Your task to perform on an android device: Search for vegetarian restaurants on Maps Image 0: 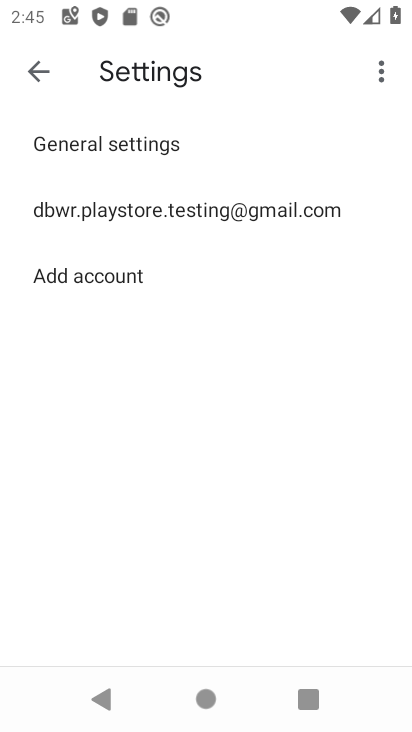
Step 0: click (34, 67)
Your task to perform on an android device: Search for vegetarian restaurants on Maps Image 1: 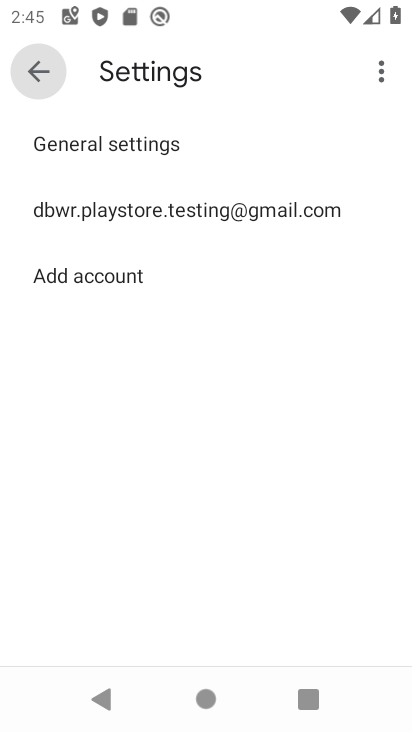
Step 1: click (34, 67)
Your task to perform on an android device: Search for vegetarian restaurants on Maps Image 2: 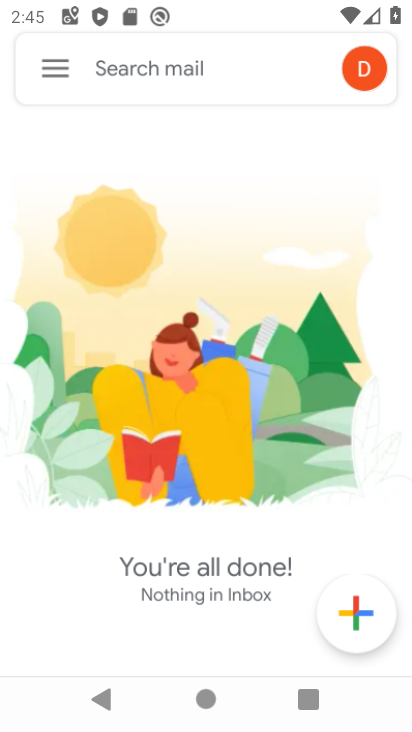
Step 2: click (34, 67)
Your task to perform on an android device: Search for vegetarian restaurants on Maps Image 3: 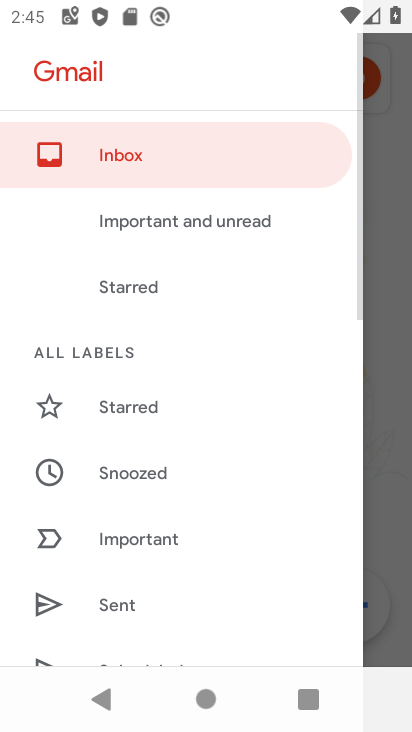
Step 3: click (394, 362)
Your task to perform on an android device: Search for vegetarian restaurants on Maps Image 4: 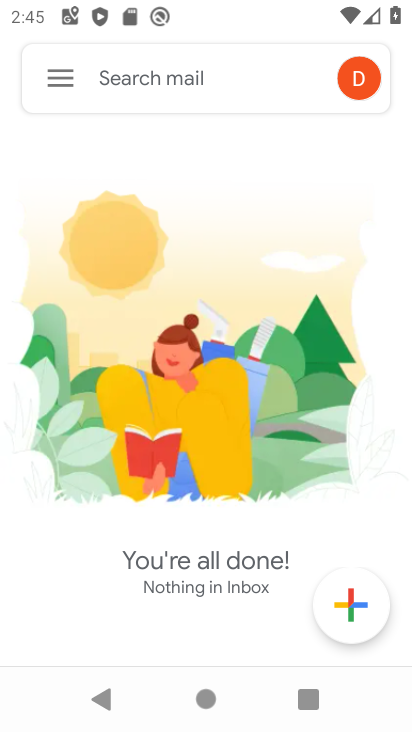
Step 4: press back button
Your task to perform on an android device: Search for vegetarian restaurants on Maps Image 5: 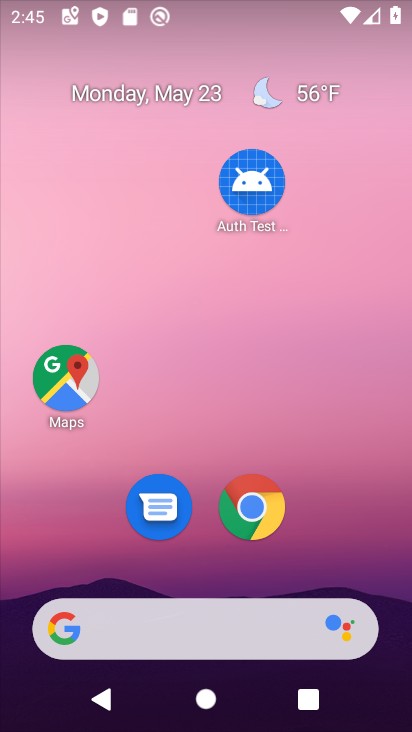
Step 5: drag from (250, 668) to (150, 56)
Your task to perform on an android device: Search for vegetarian restaurants on Maps Image 6: 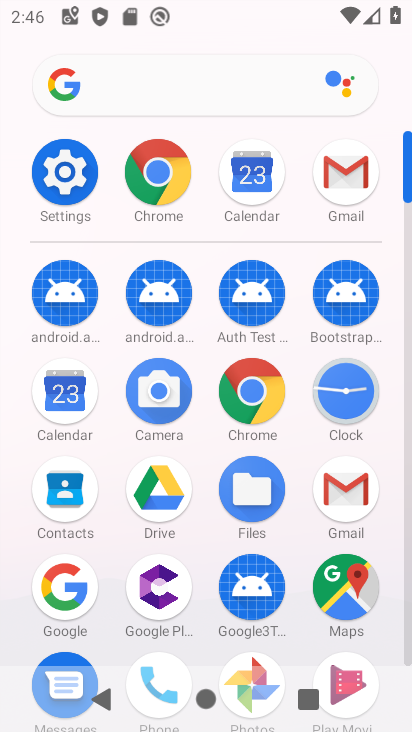
Step 6: click (353, 582)
Your task to perform on an android device: Search for vegetarian restaurants on Maps Image 7: 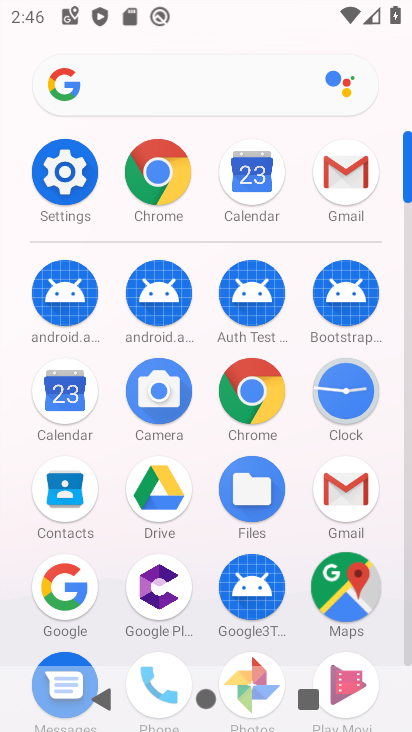
Step 7: click (353, 582)
Your task to perform on an android device: Search for vegetarian restaurants on Maps Image 8: 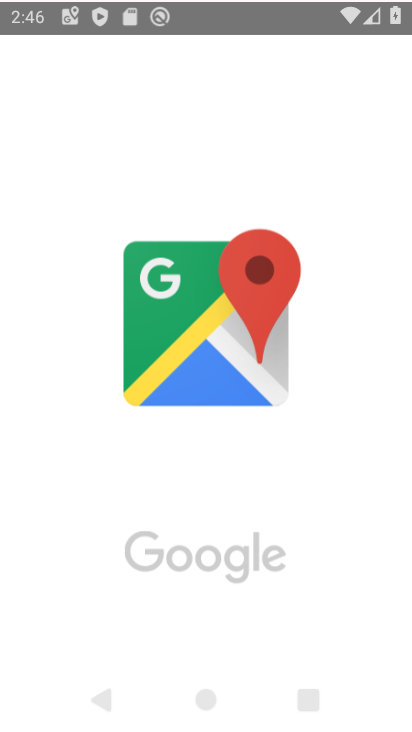
Step 8: click (354, 581)
Your task to perform on an android device: Search for vegetarian restaurants on Maps Image 9: 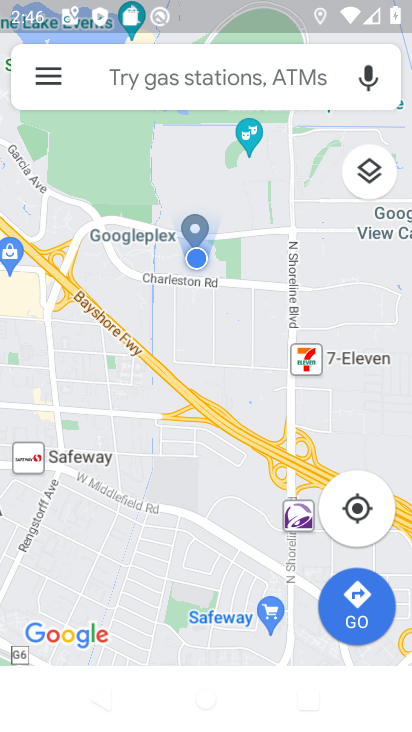
Step 9: click (112, 77)
Your task to perform on an android device: Search for vegetarian restaurants on Maps Image 10: 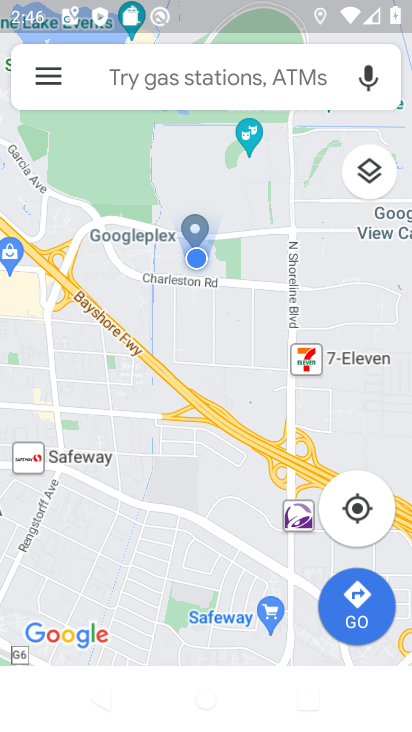
Step 10: click (113, 71)
Your task to perform on an android device: Search for vegetarian restaurants on Maps Image 11: 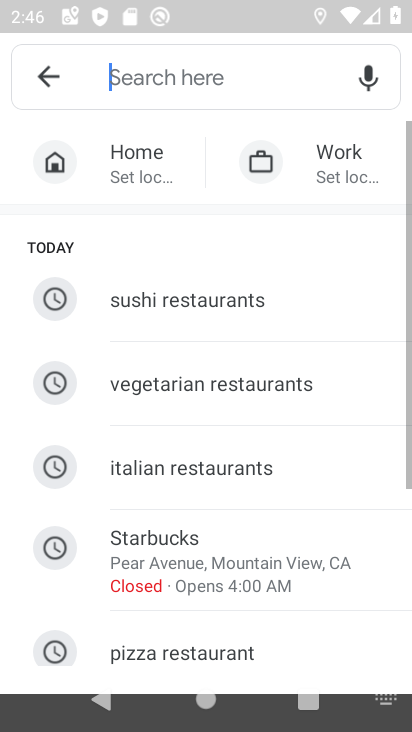
Step 11: click (113, 71)
Your task to perform on an android device: Search for vegetarian restaurants on Maps Image 12: 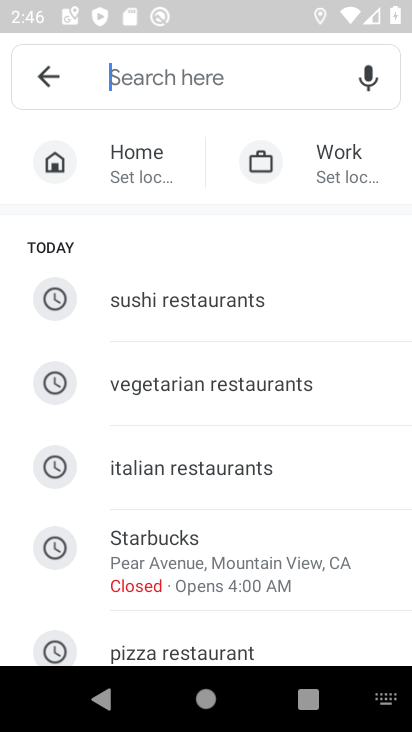
Step 12: click (146, 378)
Your task to perform on an android device: Search for vegetarian restaurants on Maps Image 13: 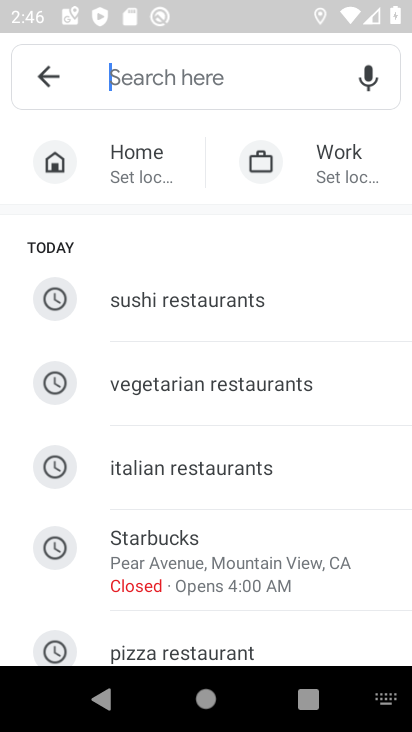
Step 13: click (146, 378)
Your task to perform on an android device: Search for vegetarian restaurants on Maps Image 14: 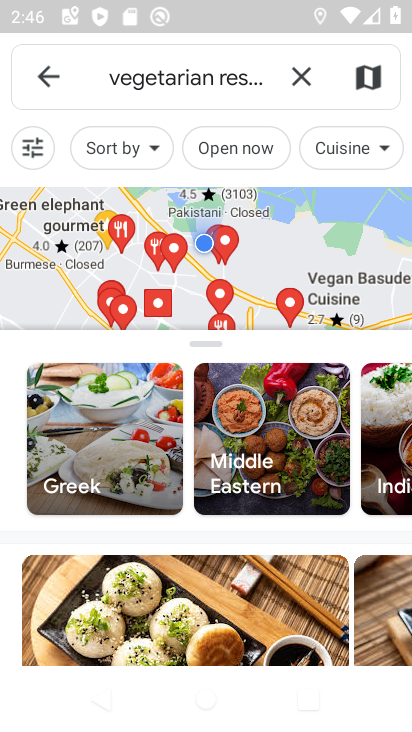
Step 14: task complete